Your task to perform on an android device: open app "Move to iOS" Image 0: 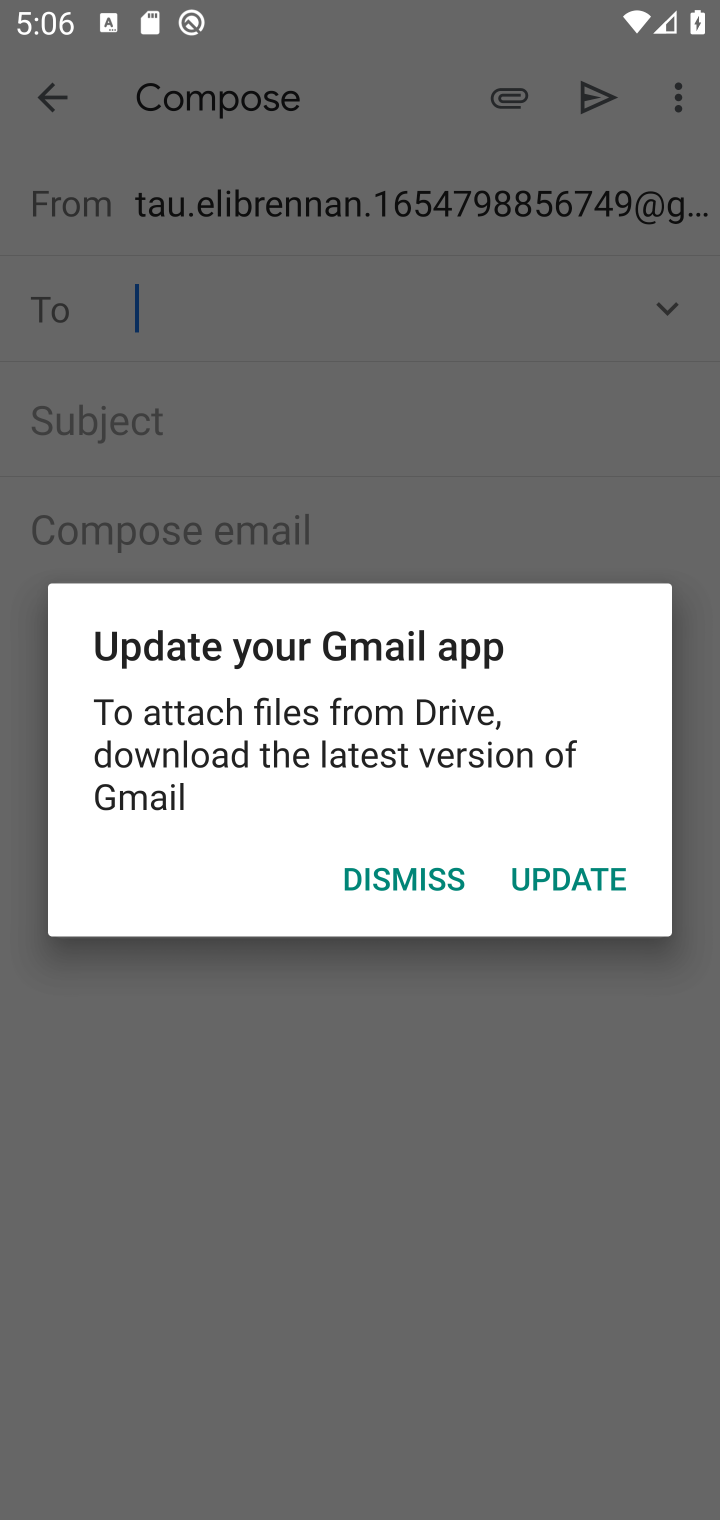
Step 0: press home button
Your task to perform on an android device: open app "Move to iOS" Image 1: 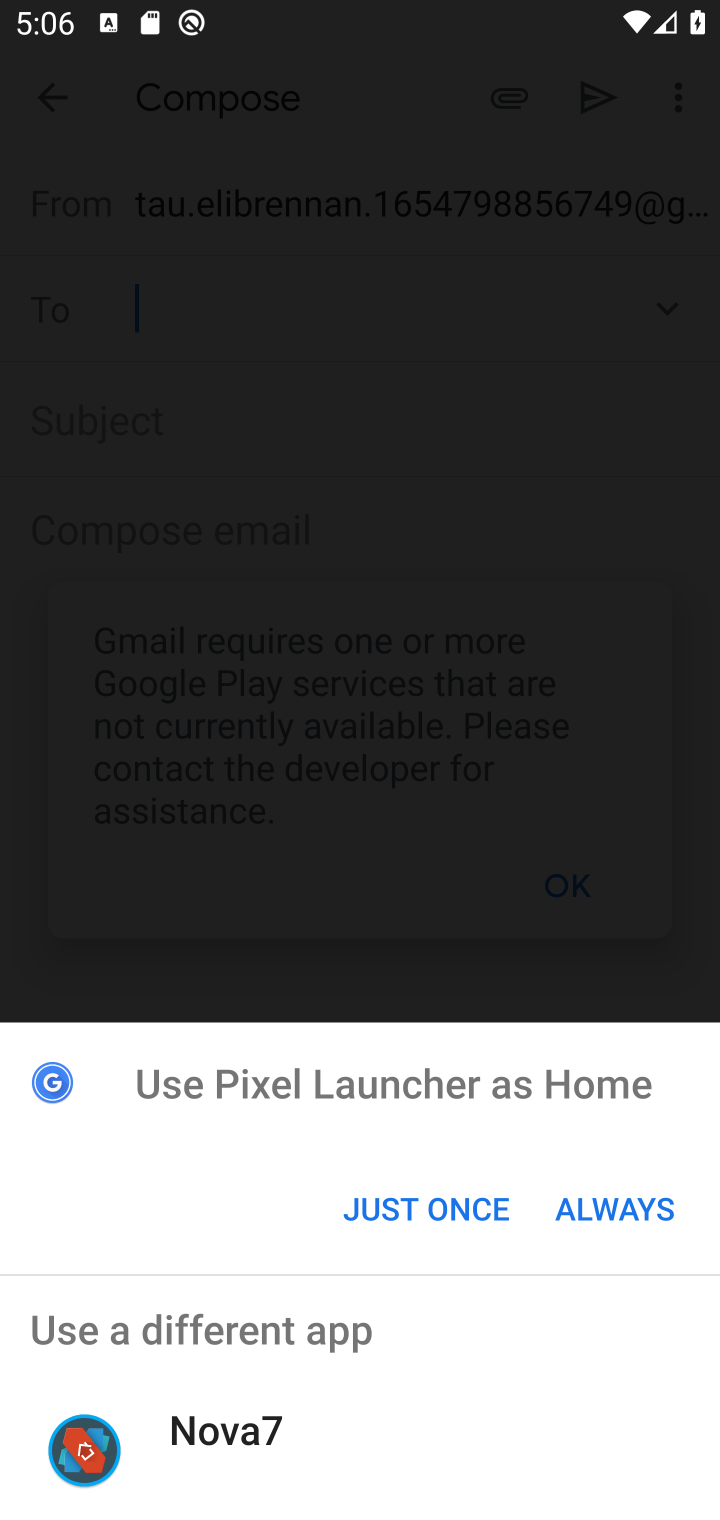
Step 1: click (387, 1206)
Your task to perform on an android device: open app "Move to iOS" Image 2: 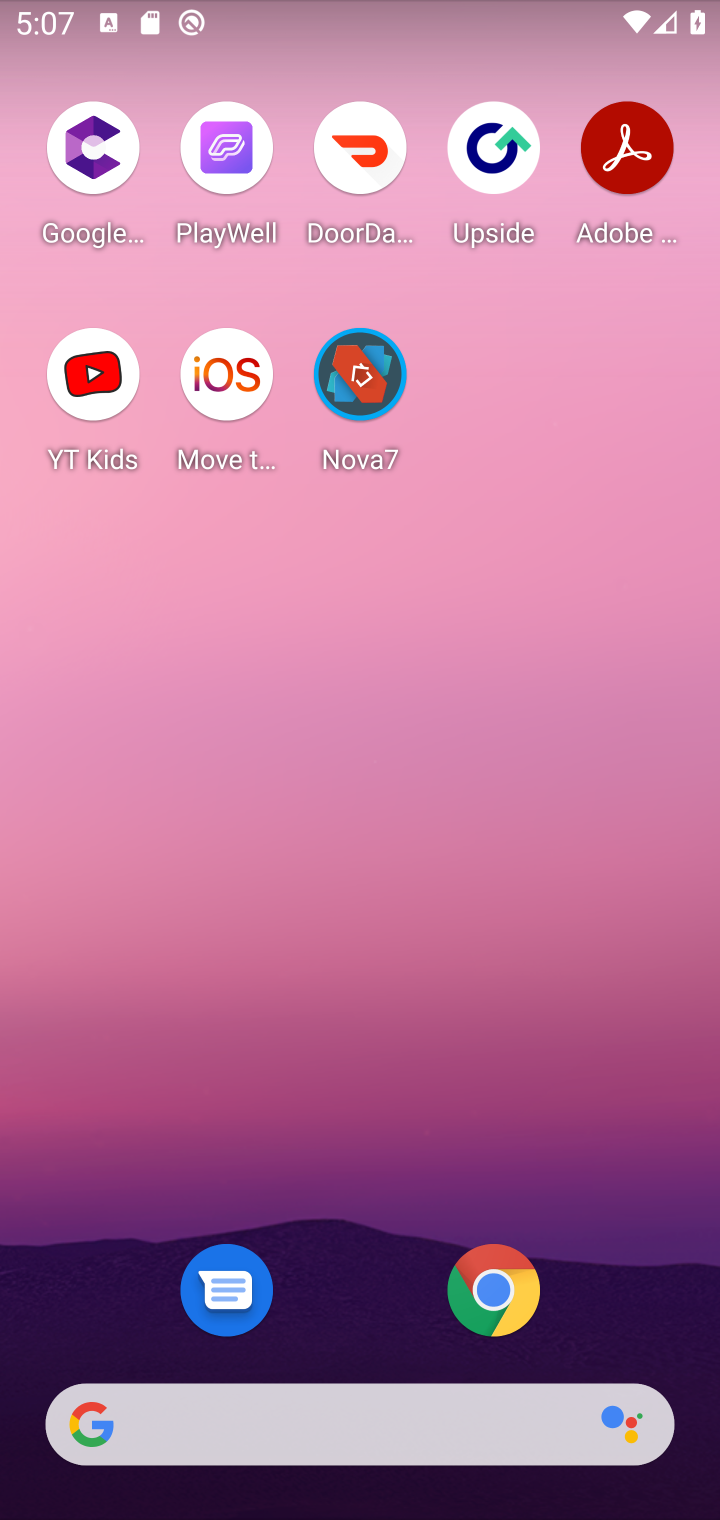
Step 2: drag from (355, 376) to (365, 10)
Your task to perform on an android device: open app "Move to iOS" Image 3: 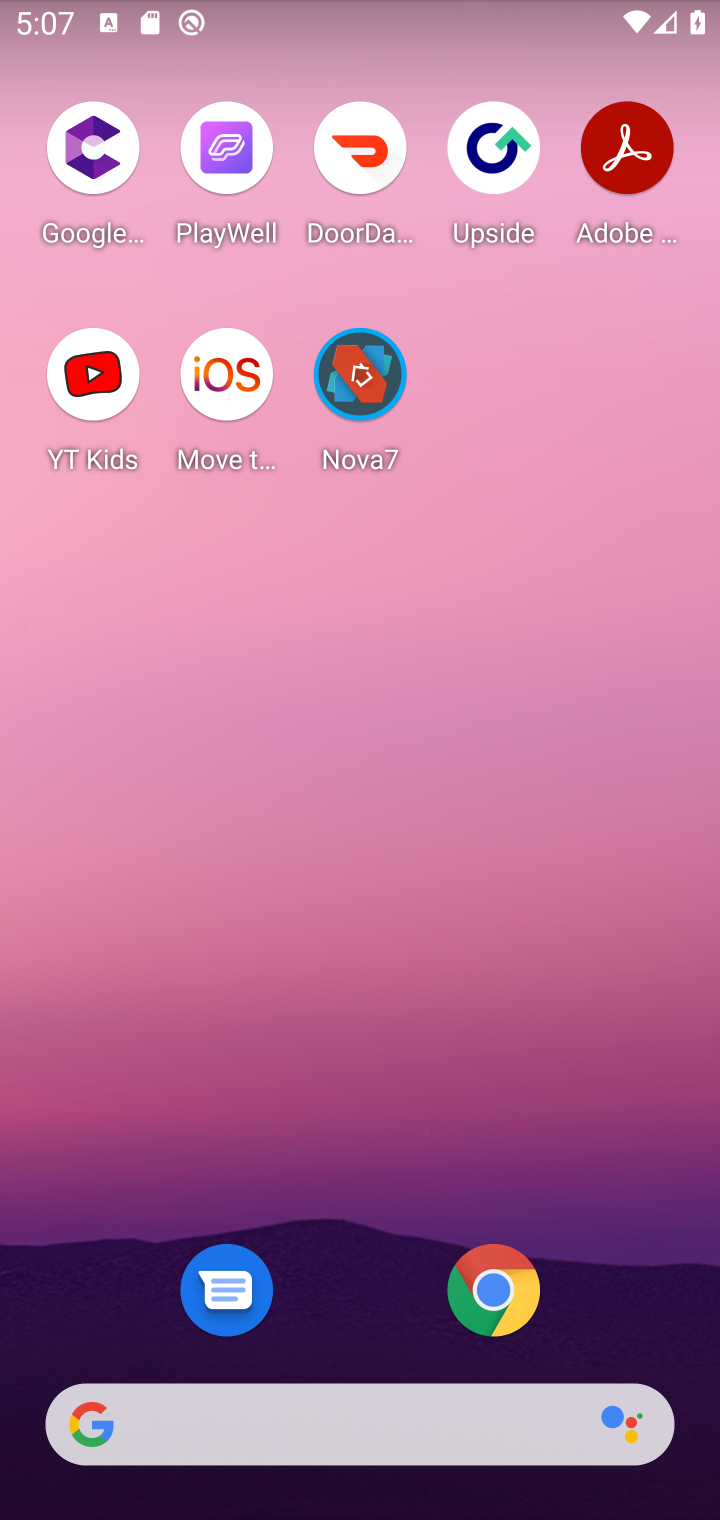
Step 3: drag from (293, 1161) to (376, 374)
Your task to perform on an android device: open app "Move to iOS" Image 4: 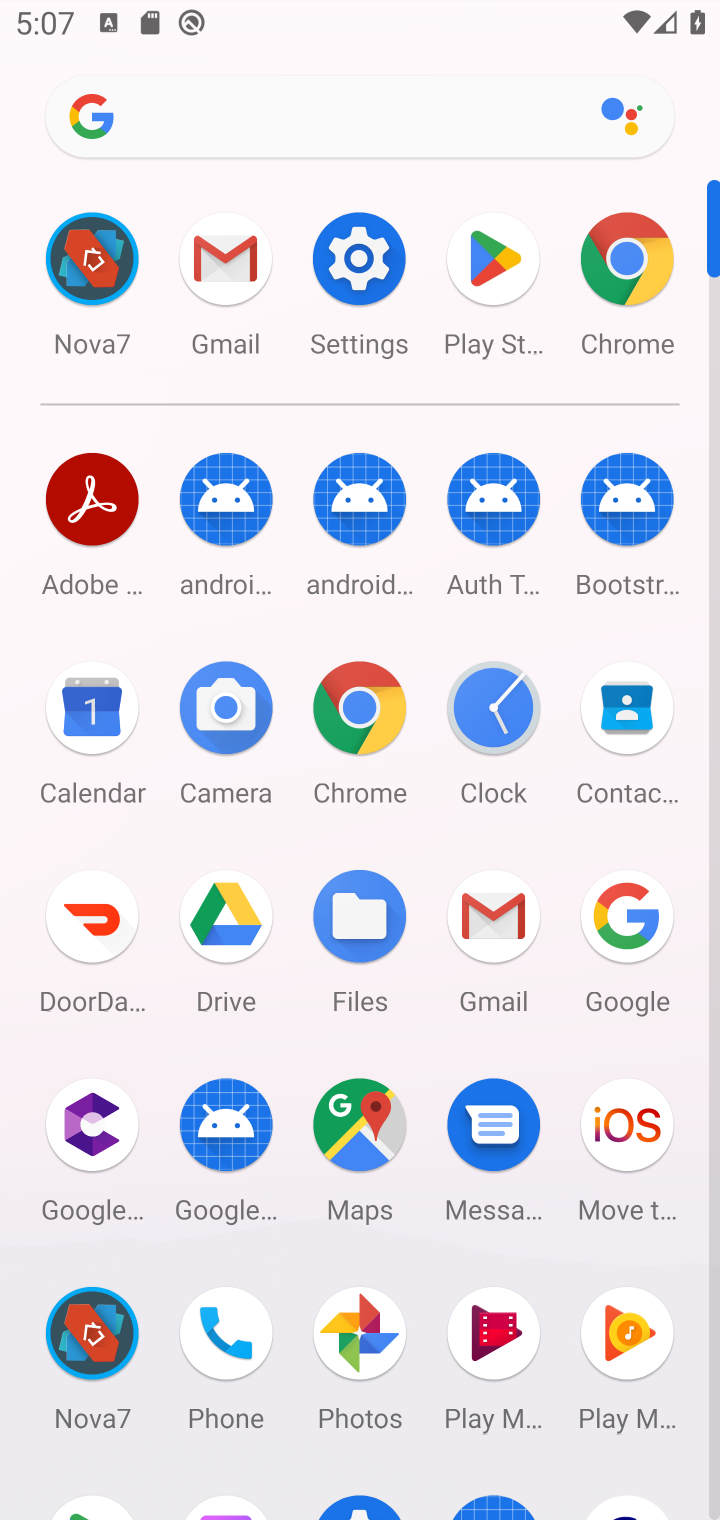
Step 4: click (497, 229)
Your task to perform on an android device: open app "Move to iOS" Image 5: 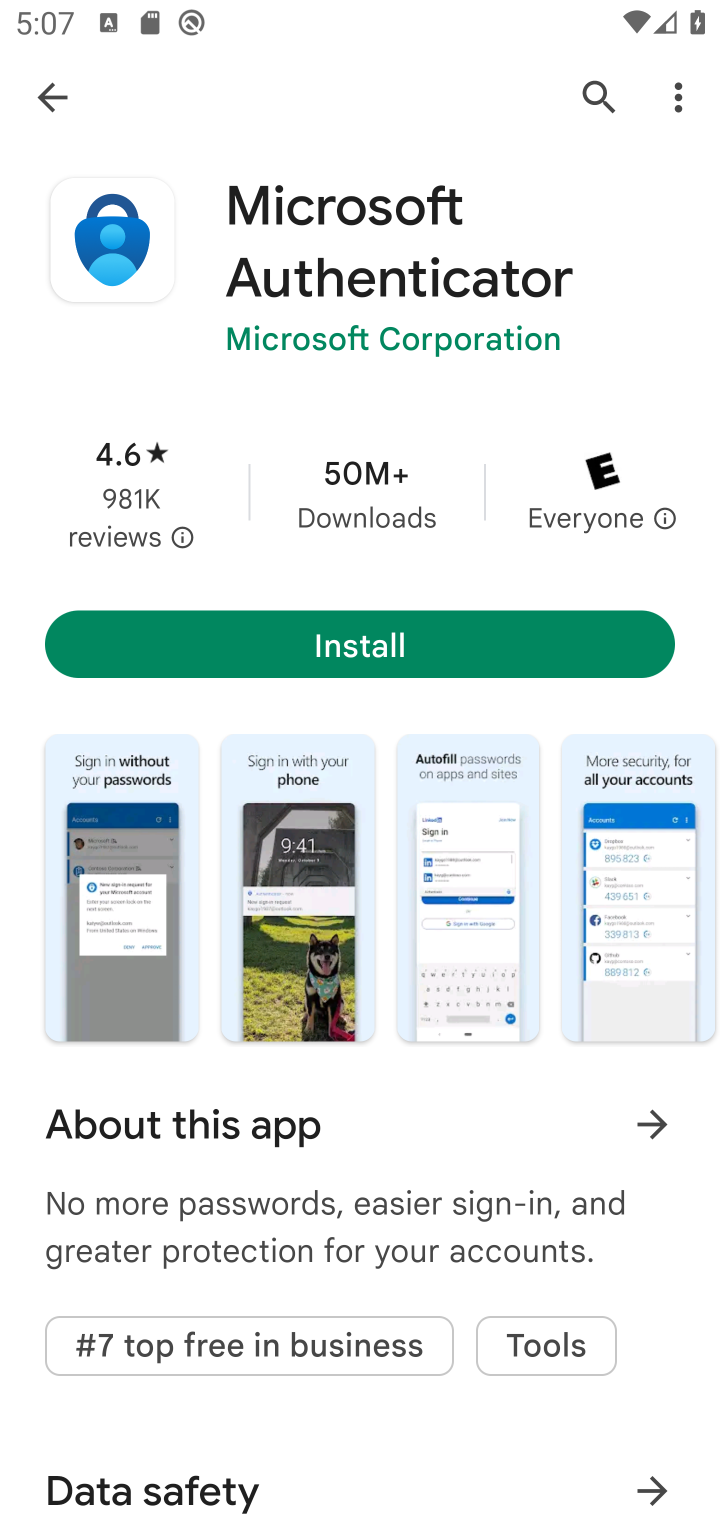
Step 5: click (601, 104)
Your task to perform on an android device: open app "Move to iOS" Image 6: 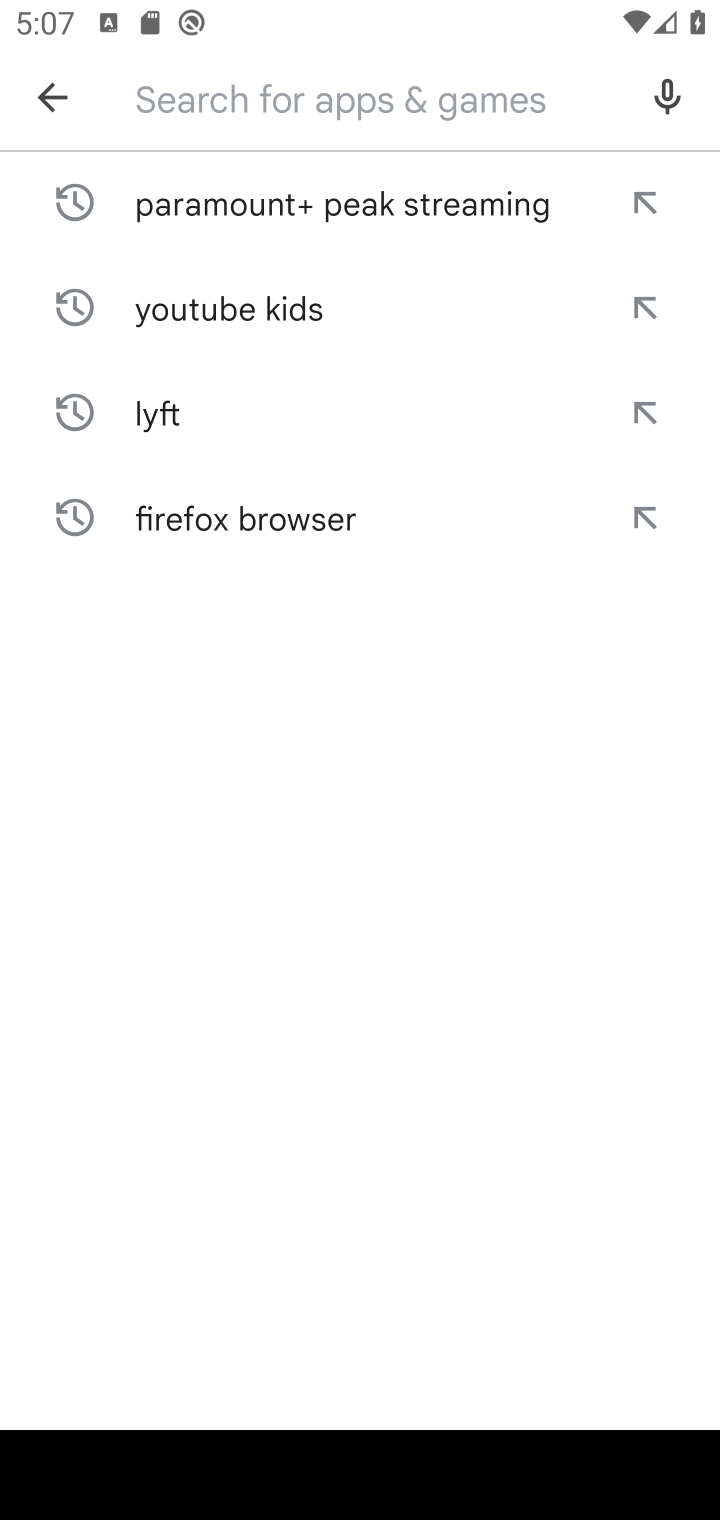
Step 6: type "move to ios"
Your task to perform on an android device: open app "Move to iOS" Image 7: 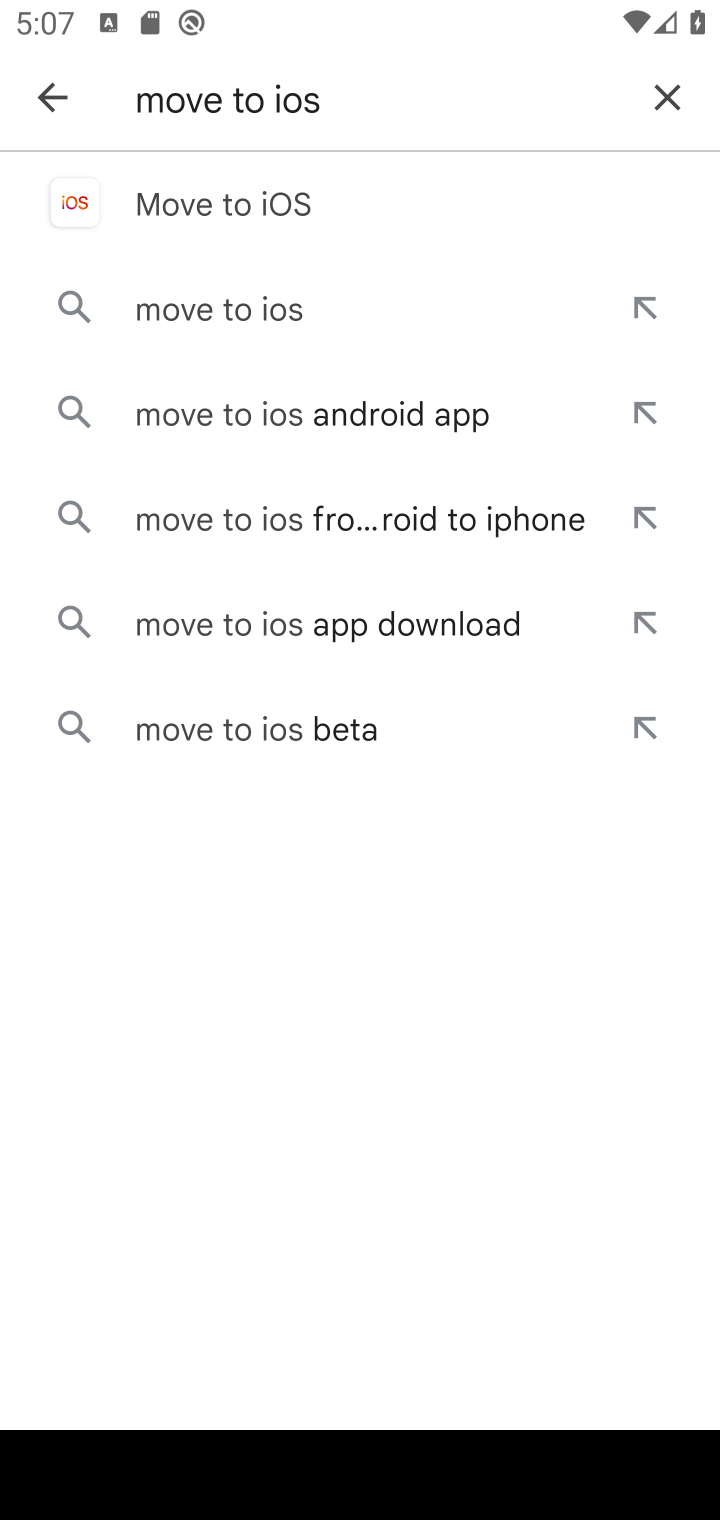
Step 7: click (253, 193)
Your task to perform on an android device: open app "Move to iOS" Image 8: 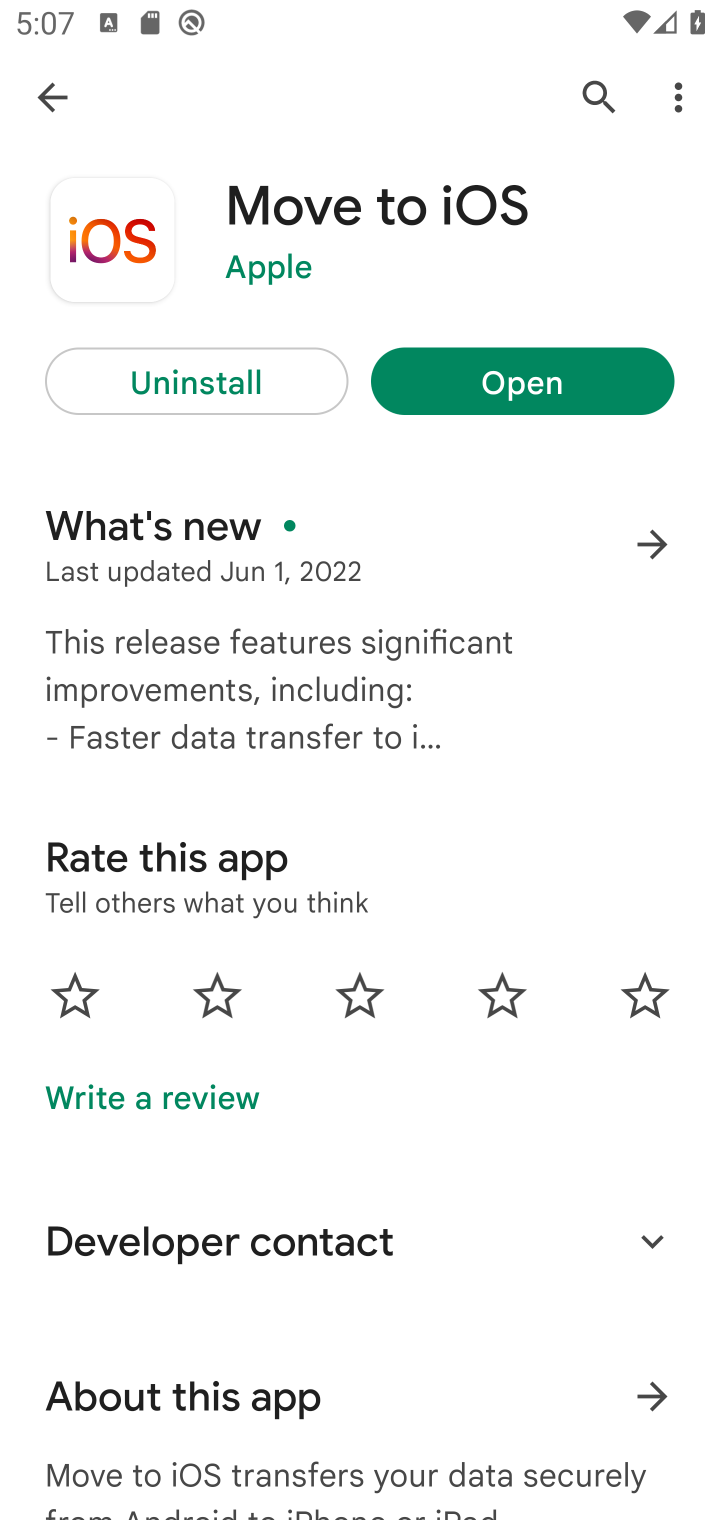
Step 8: click (513, 409)
Your task to perform on an android device: open app "Move to iOS" Image 9: 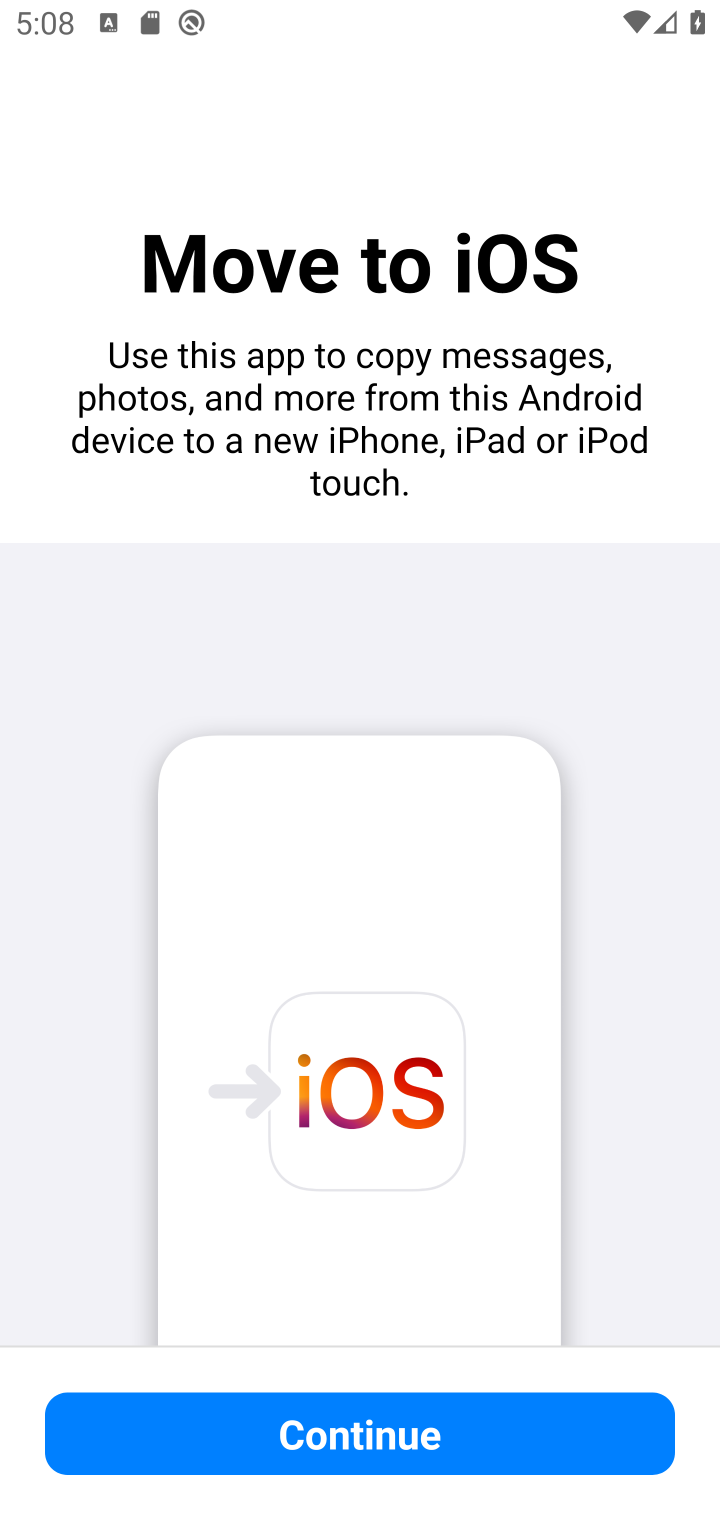
Step 9: task complete